Your task to perform on an android device: all mails in gmail Image 0: 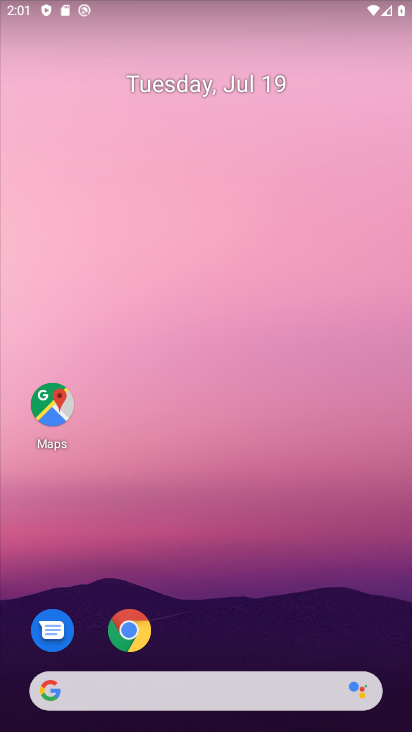
Step 0: drag from (253, 630) to (264, 117)
Your task to perform on an android device: all mails in gmail Image 1: 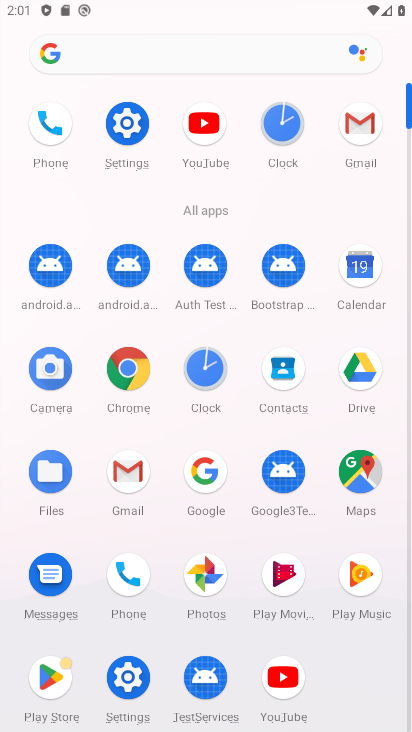
Step 1: click (360, 119)
Your task to perform on an android device: all mails in gmail Image 2: 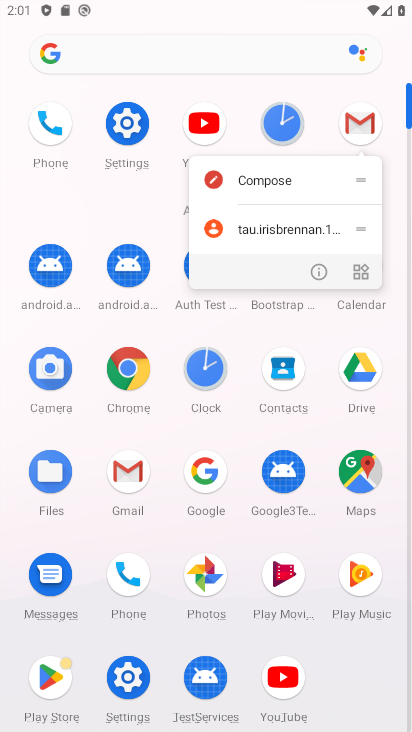
Step 2: click (360, 119)
Your task to perform on an android device: all mails in gmail Image 3: 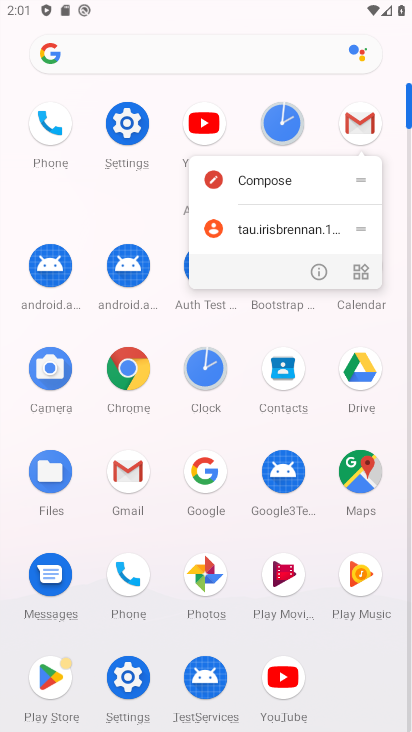
Step 3: click (360, 119)
Your task to perform on an android device: all mails in gmail Image 4: 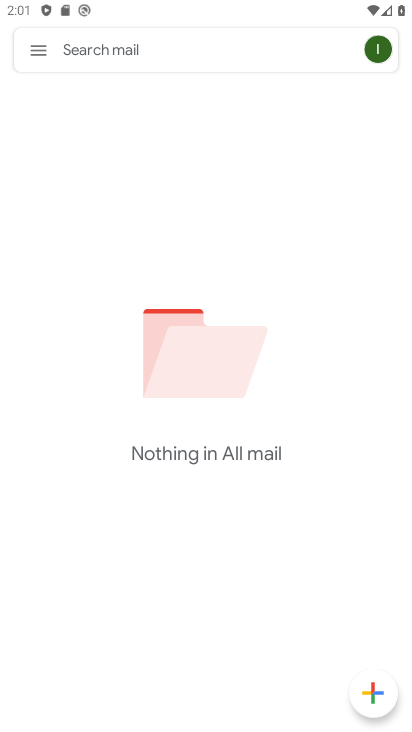
Step 4: task complete